Your task to perform on an android device: toggle priority inbox in the gmail app Image 0: 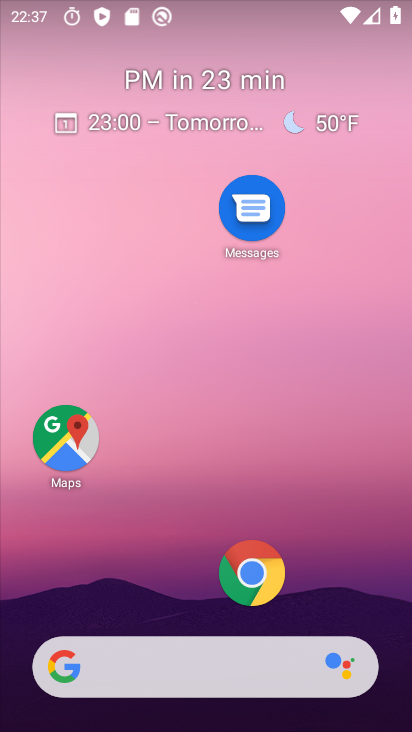
Step 0: drag from (193, 599) to (185, 113)
Your task to perform on an android device: toggle priority inbox in the gmail app Image 1: 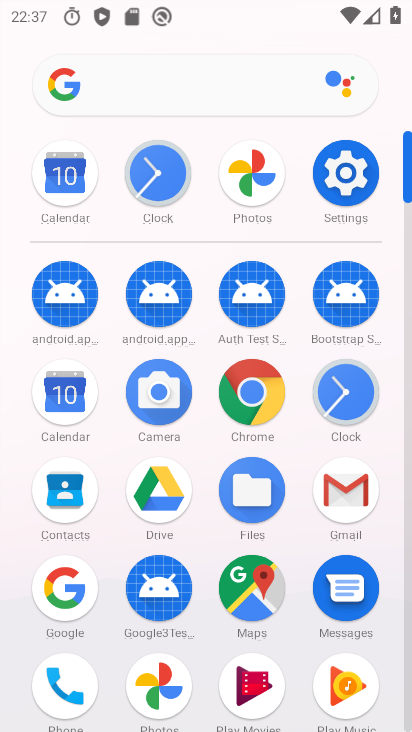
Step 1: click (346, 486)
Your task to perform on an android device: toggle priority inbox in the gmail app Image 2: 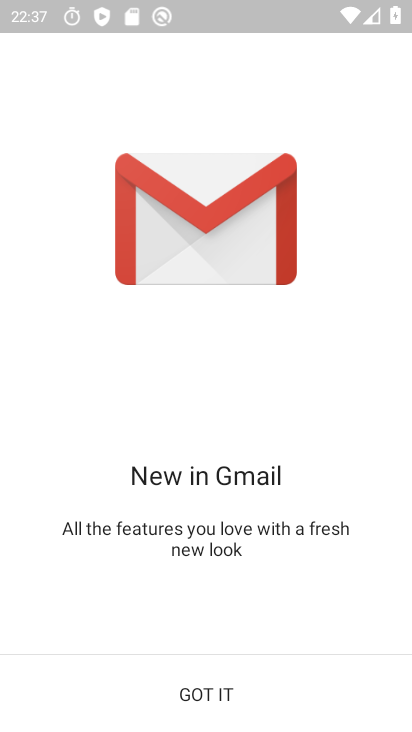
Step 2: click (208, 683)
Your task to perform on an android device: toggle priority inbox in the gmail app Image 3: 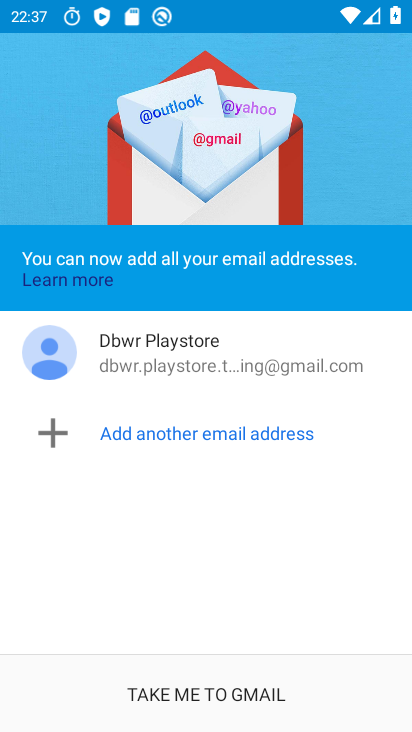
Step 3: click (197, 696)
Your task to perform on an android device: toggle priority inbox in the gmail app Image 4: 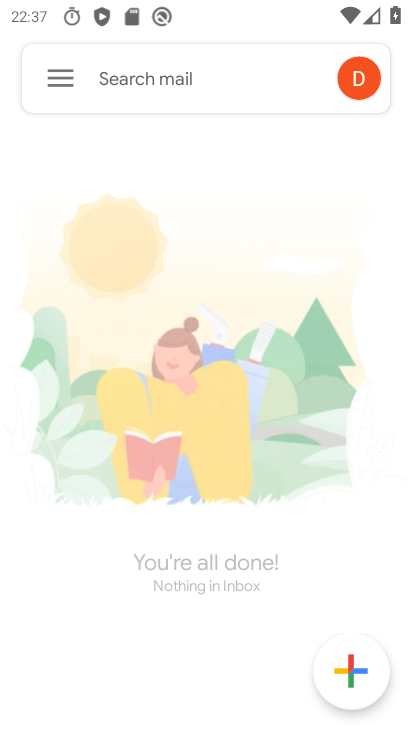
Step 4: click (51, 81)
Your task to perform on an android device: toggle priority inbox in the gmail app Image 5: 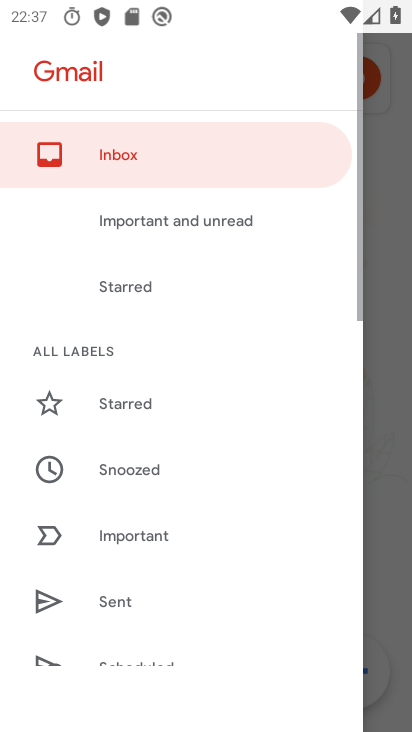
Step 5: drag from (201, 588) to (293, 16)
Your task to perform on an android device: toggle priority inbox in the gmail app Image 6: 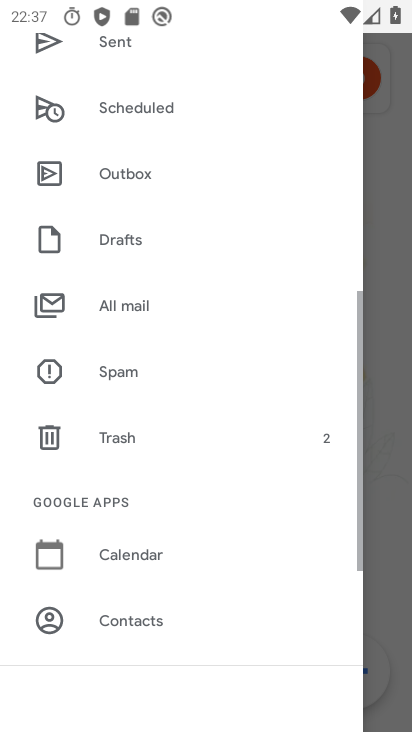
Step 6: drag from (149, 601) to (193, 146)
Your task to perform on an android device: toggle priority inbox in the gmail app Image 7: 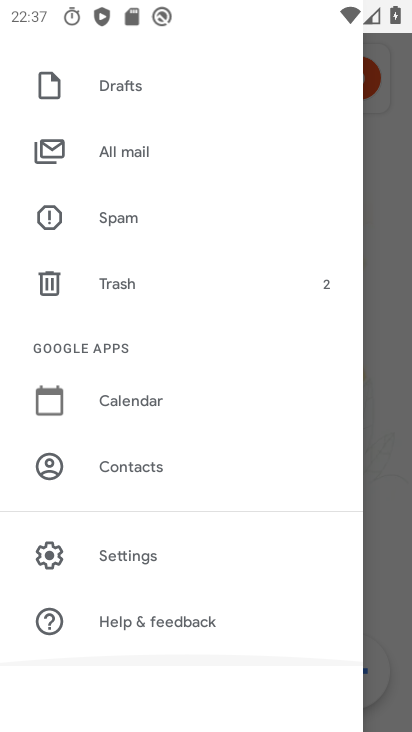
Step 7: click (131, 565)
Your task to perform on an android device: toggle priority inbox in the gmail app Image 8: 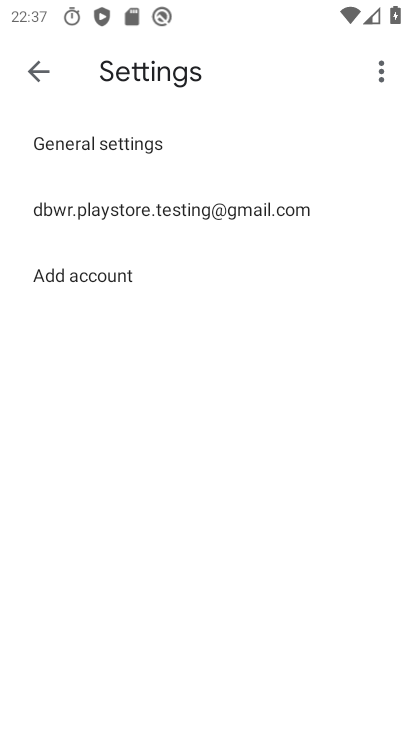
Step 8: click (104, 214)
Your task to perform on an android device: toggle priority inbox in the gmail app Image 9: 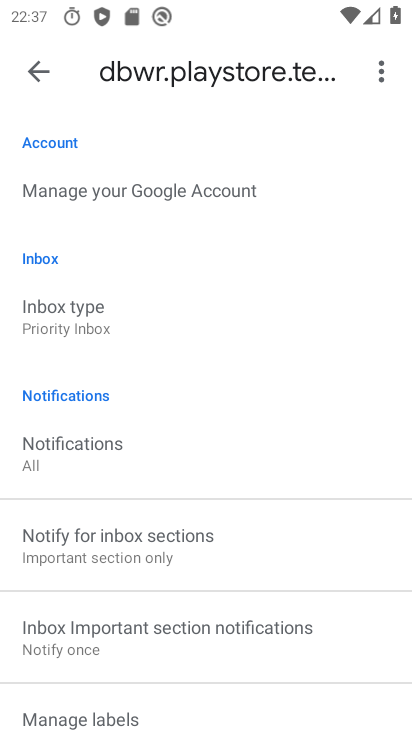
Step 9: click (70, 320)
Your task to perform on an android device: toggle priority inbox in the gmail app Image 10: 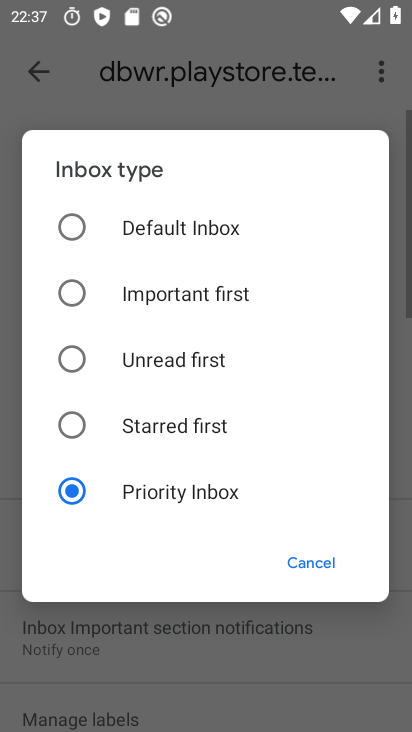
Step 10: click (65, 218)
Your task to perform on an android device: toggle priority inbox in the gmail app Image 11: 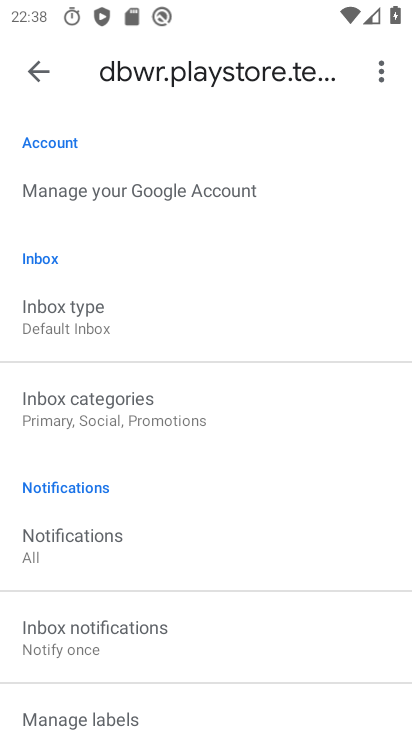
Step 11: task complete